Your task to perform on an android device: open device folders in google photos Image 0: 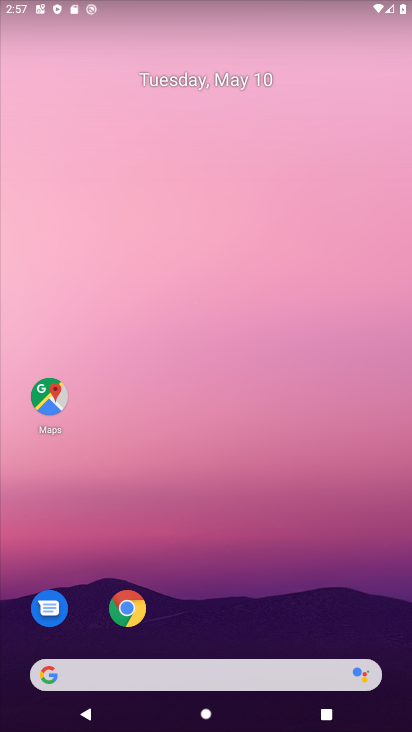
Step 0: drag from (253, 629) to (338, 0)
Your task to perform on an android device: open device folders in google photos Image 1: 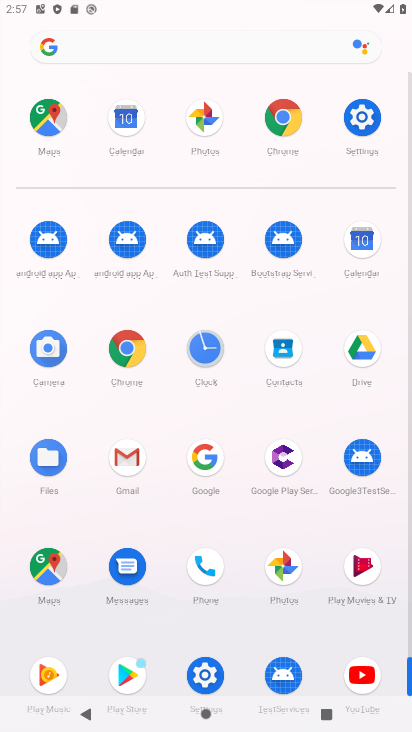
Step 1: click (271, 565)
Your task to perform on an android device: open device folders in google photos Image 2: 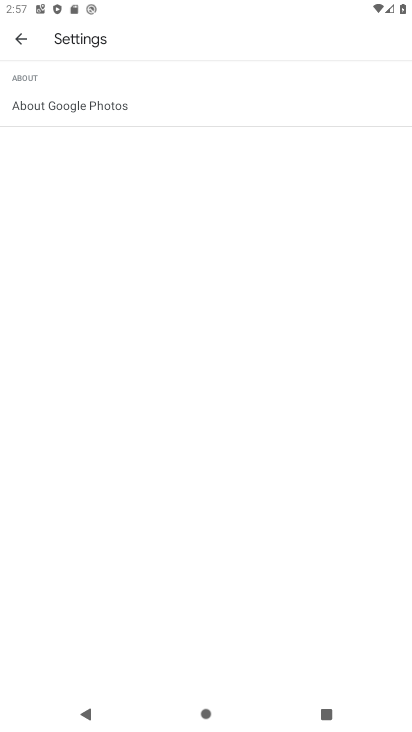
Step 2: click (20, 33)
Your task to perform on an android device: open device folders in google photos Image 3: 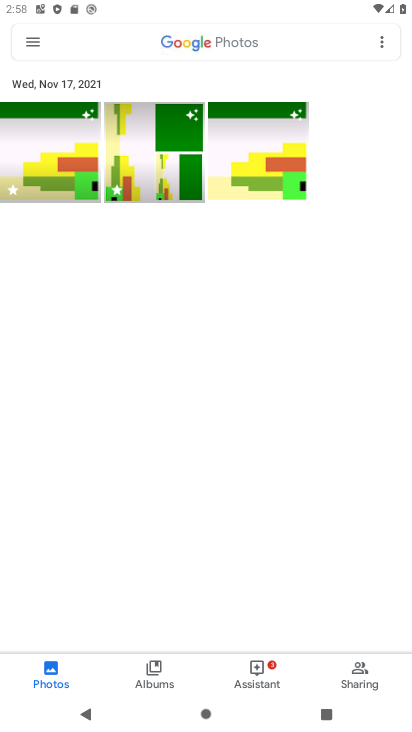
Step 3: click (42, 58)
Your task to perform on an android device: open device folders in google photos Image 4: 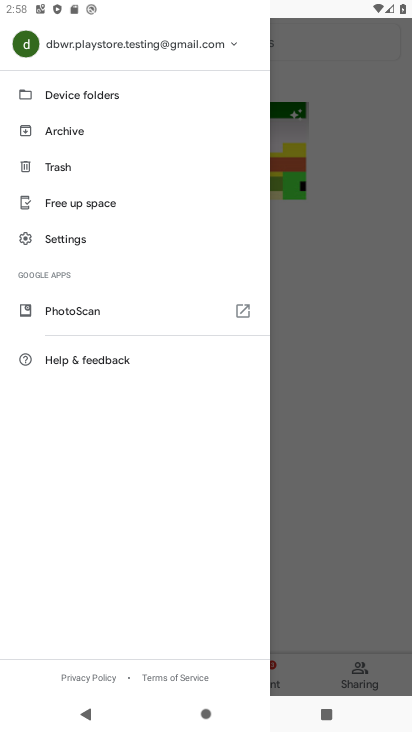
Step 4: click (118, 101)
Your task to perform on an android device: open device folders in google photos Image 5: 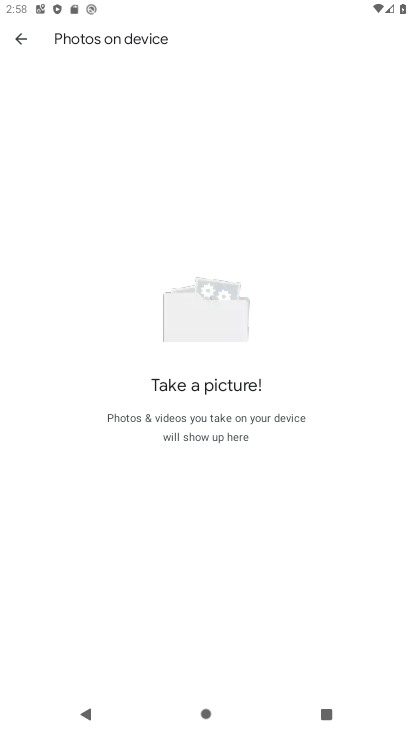
Step 5: task complete